Your task to perform on an android device: add a label to a message in the gmail app Image 0: 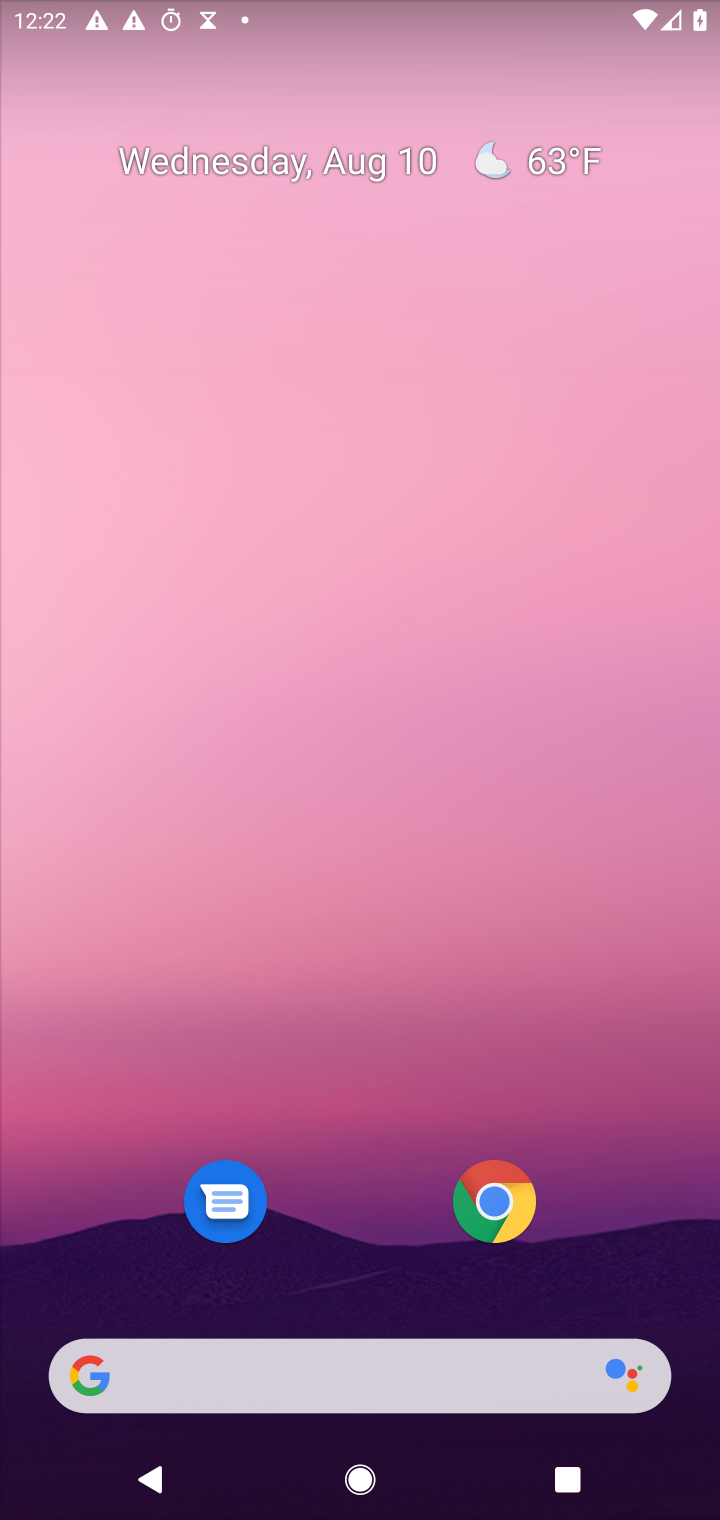
Step 0: press home button
Your task to perform on an android device: add a label to a message in the gmail app Image 1: 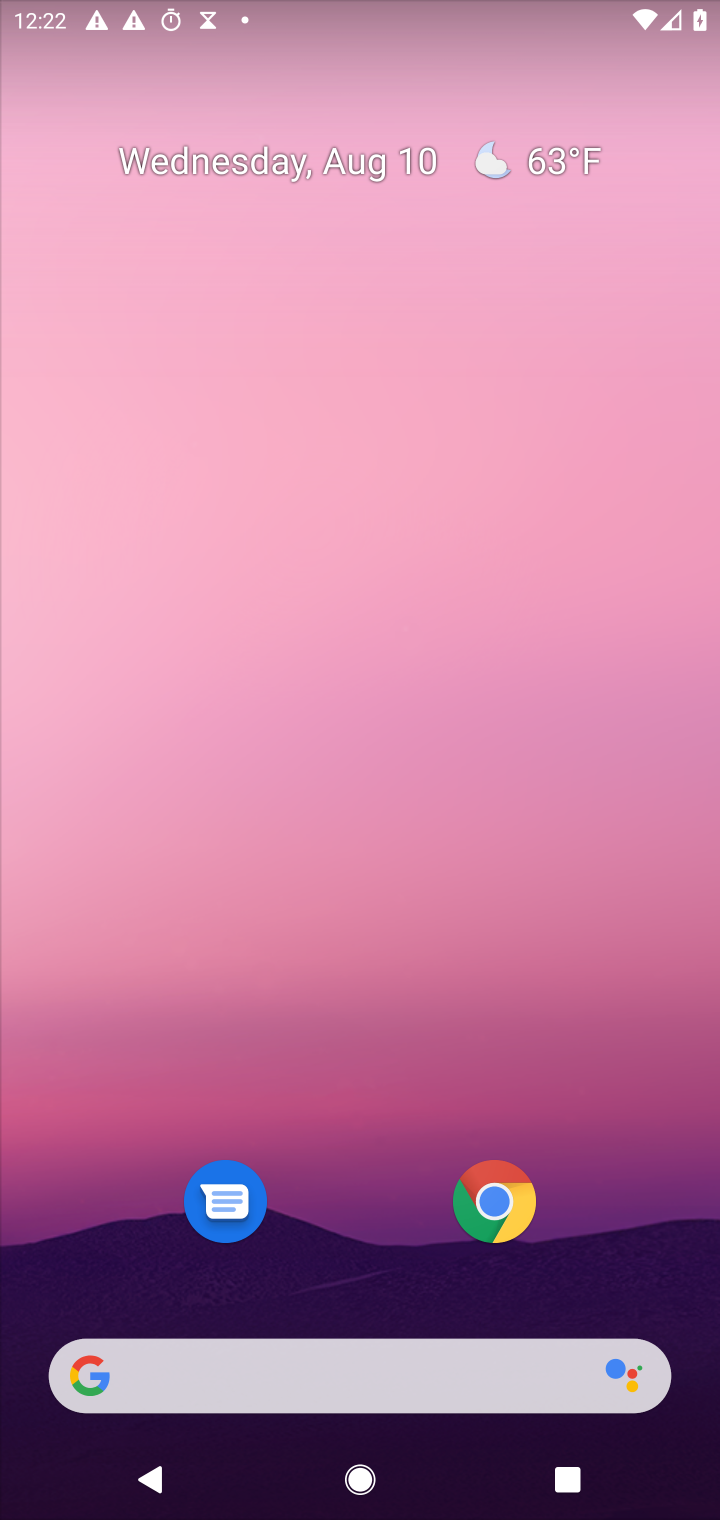
Step 1: drag from (319, 1030) to (388, 119)
Your task to perform on an android device: add a label to a message in the gmail app Image 2: 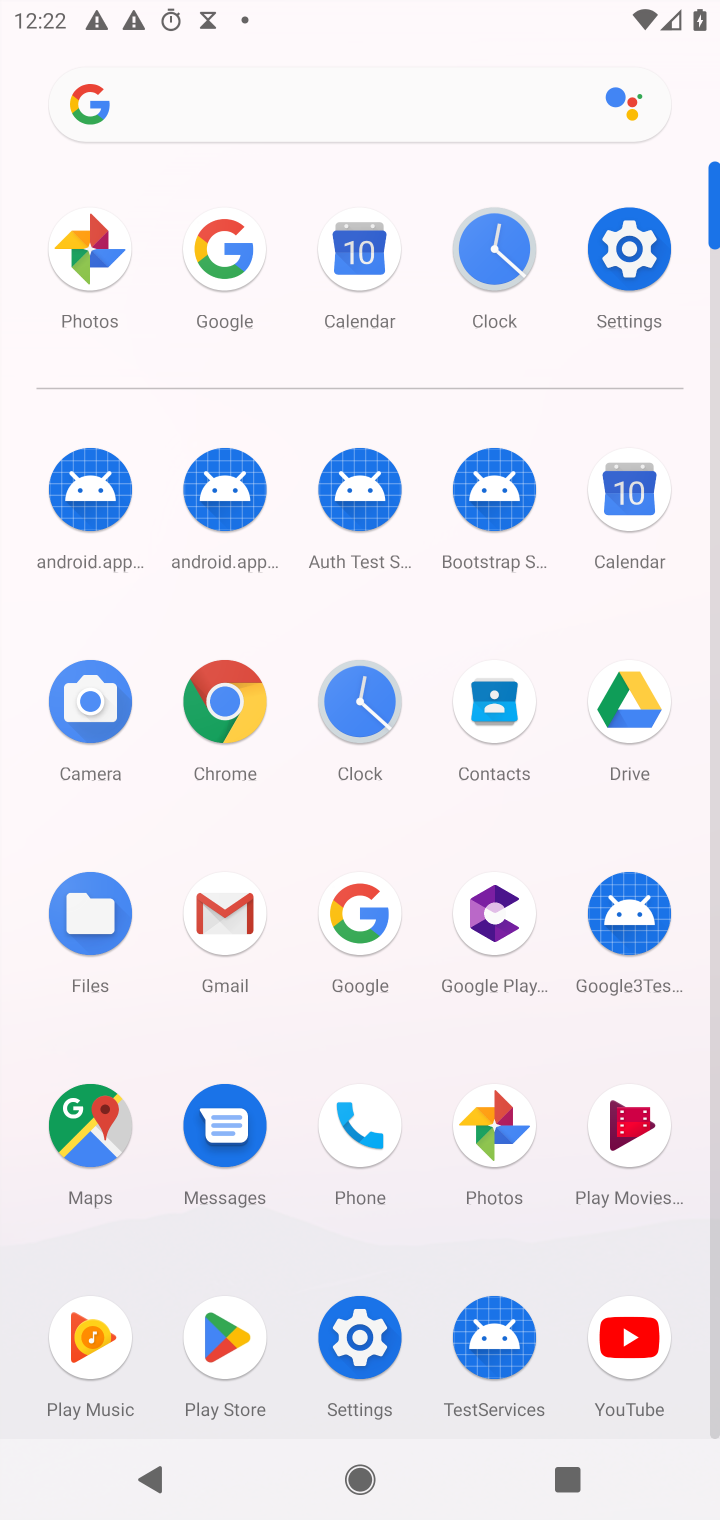
Step 2: click (215, 904)
Your task to perform on an android device: add a label to a message in the gmail app Image 3: 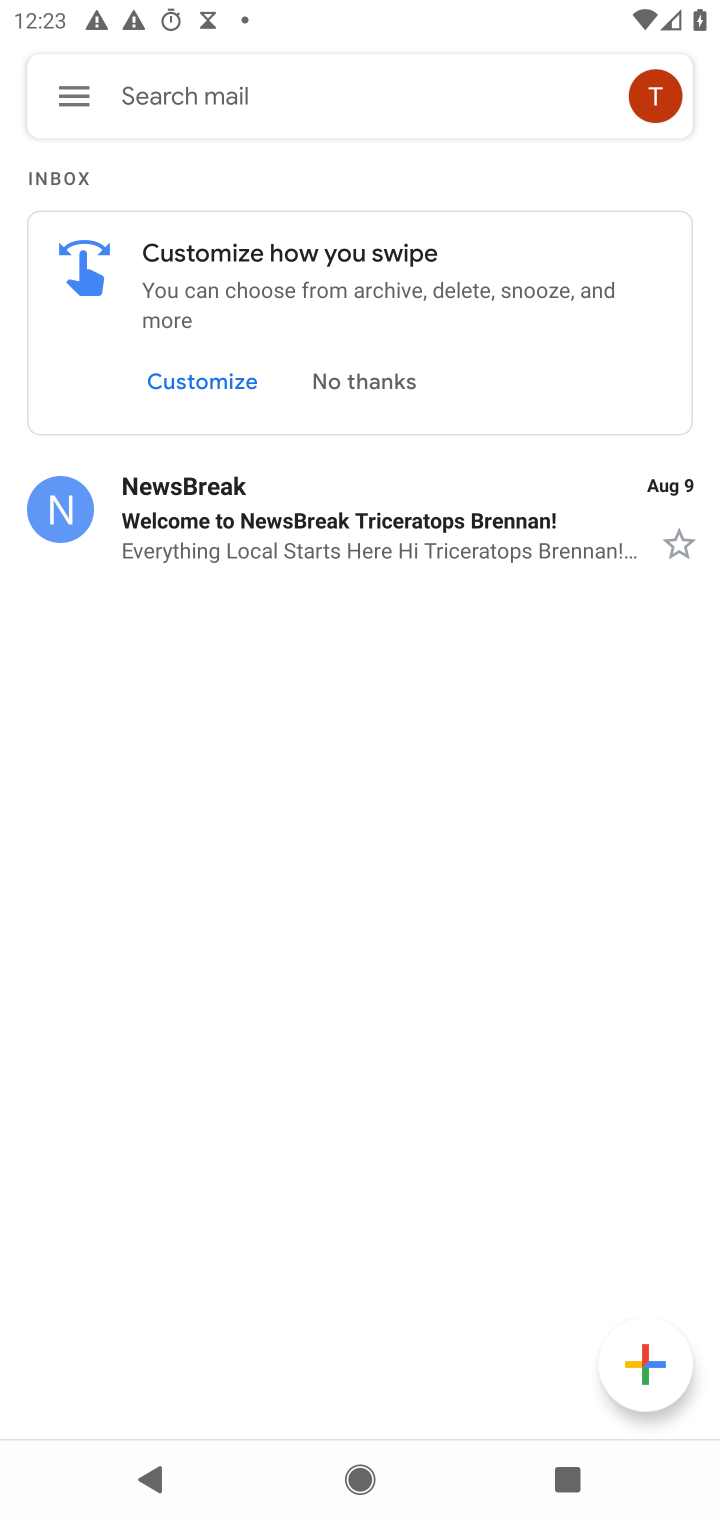
Step 3: click (218, 481)
Your task to perform on an android device: add a label to a message in the gmail app Image 4: 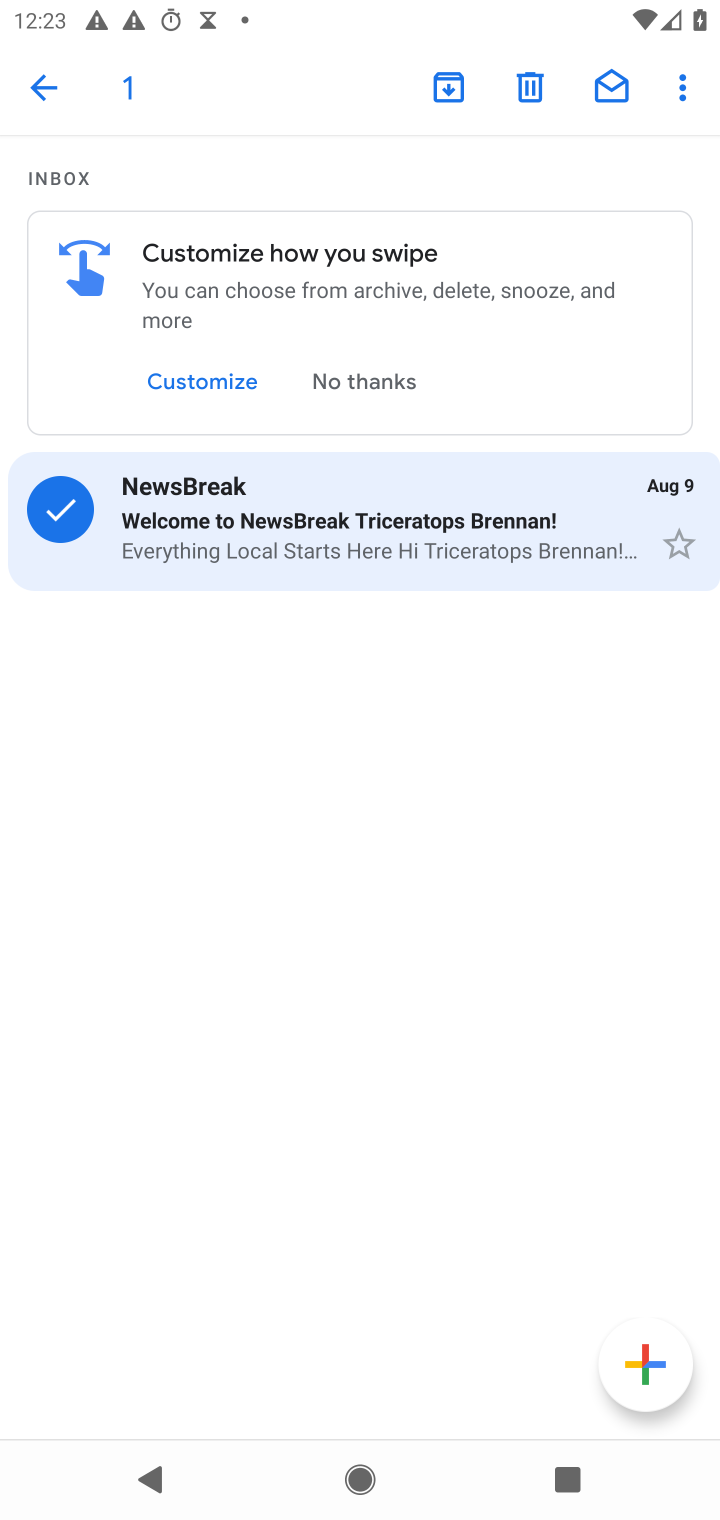
Step 4: click (673, 78)
Your task to perform on an android device: add a label to a message in the gmail app Image 5: 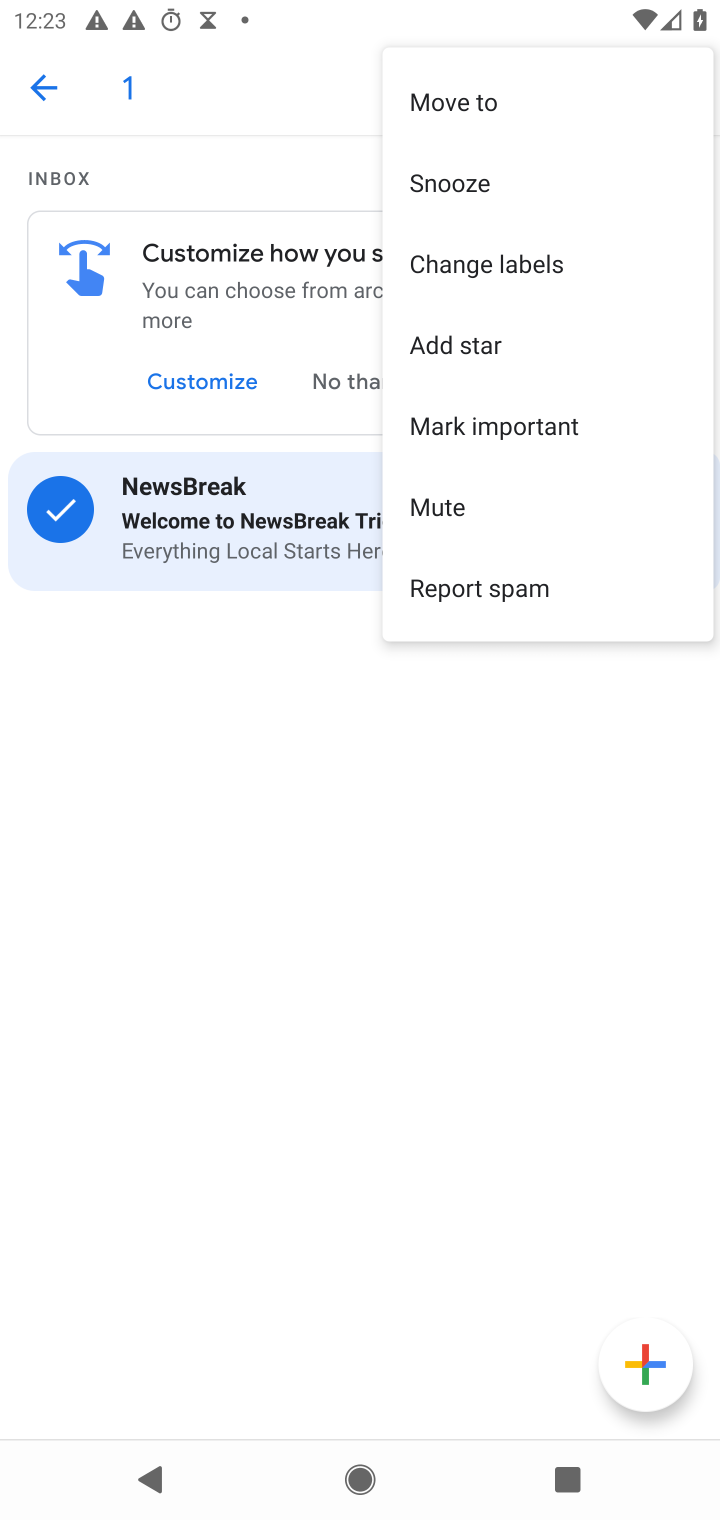
Step 5: click (461, 253)
Your task to perform on an android device: add a label to a message in the gmail app Image 6: 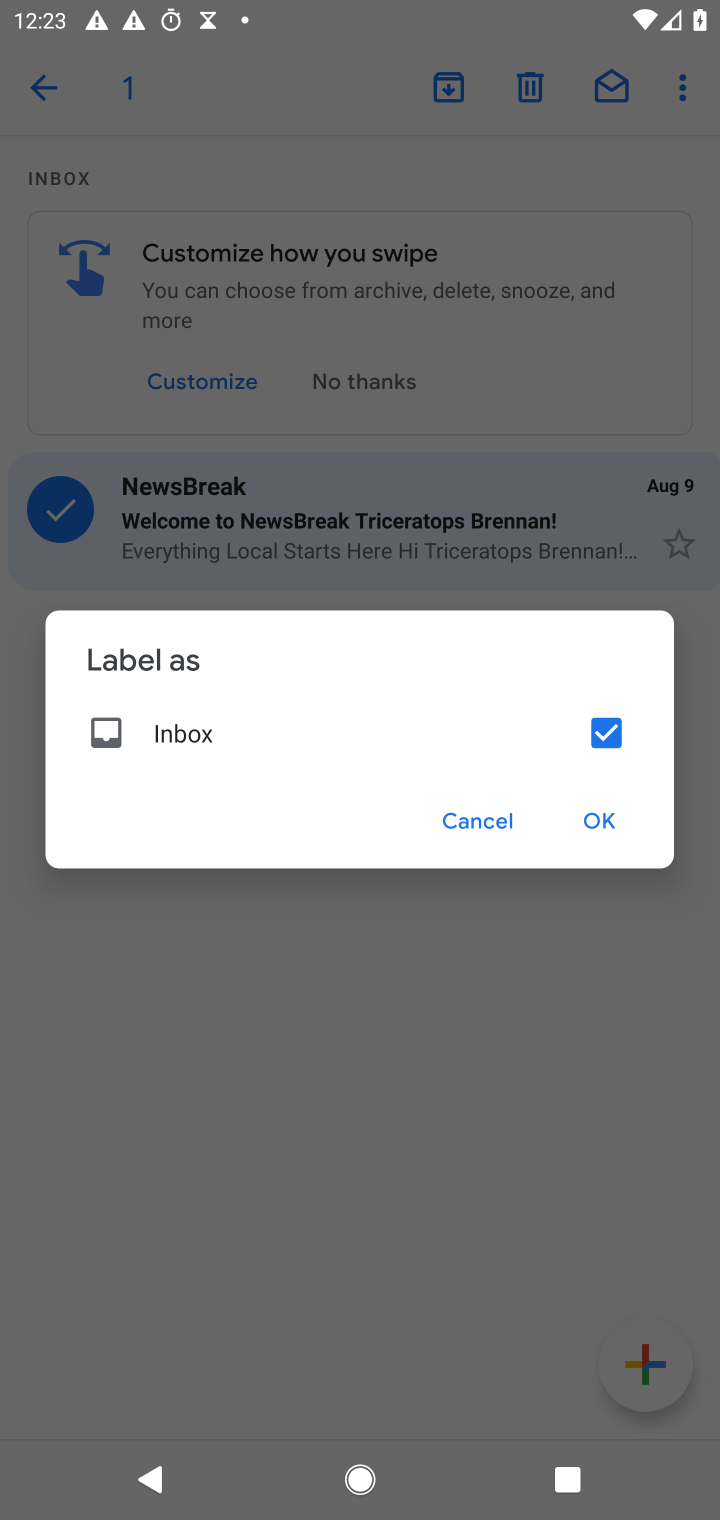
Step 6: click (591, 802)
Your task to perform on an android device: add a label to a message in the gmail app Image 7: 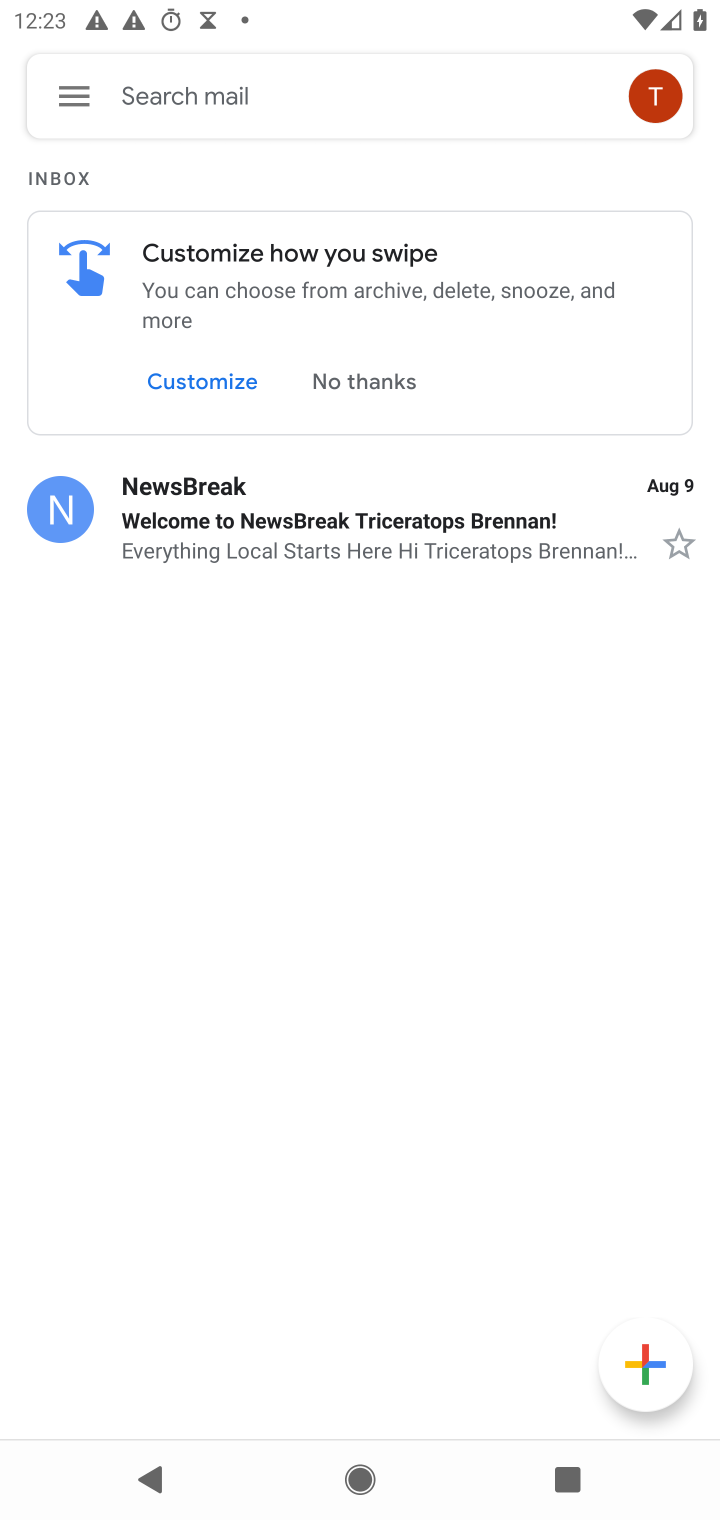
Step 7: task complete